Your task to perform on an android device: Is it going to rain this weekend? Image 0: 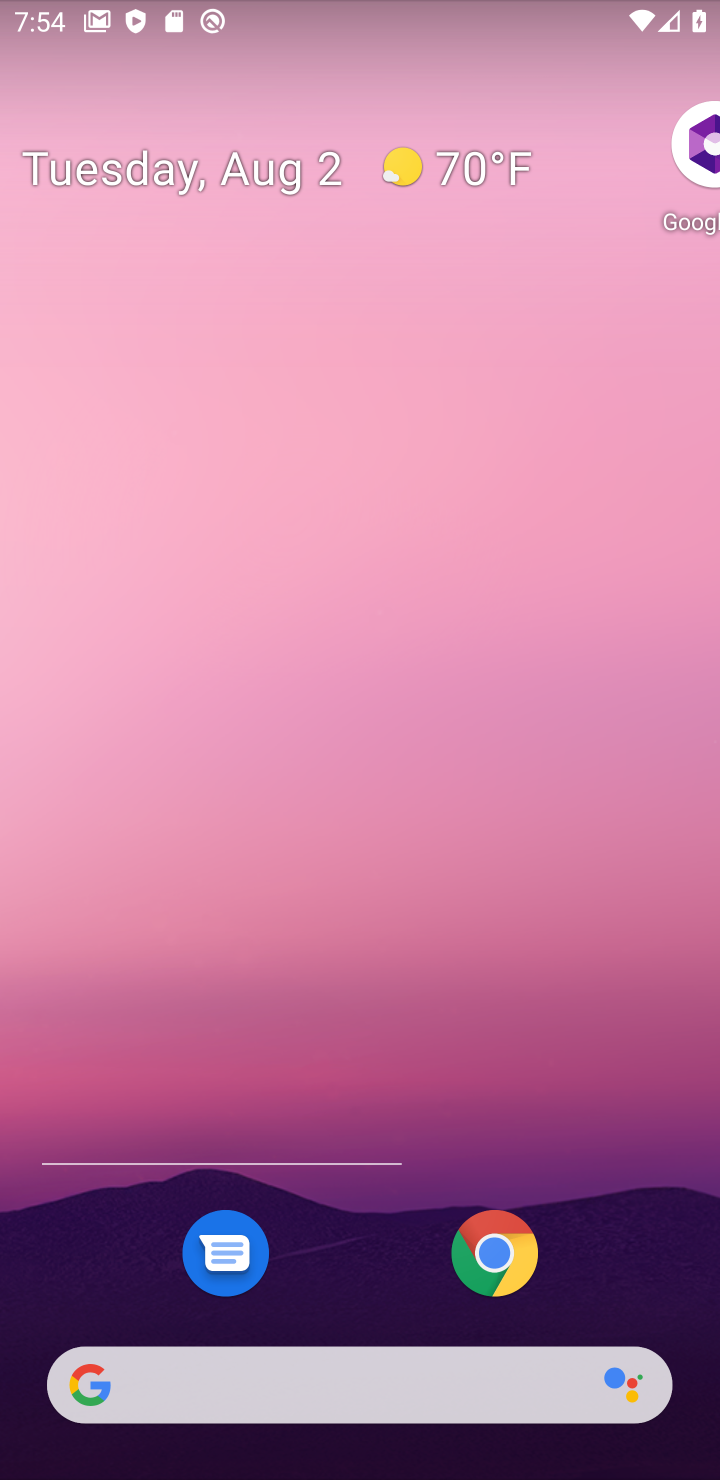
Step 0: press home button
Your task to perform on an android device: Is it going to rain this weekend? Image 1: 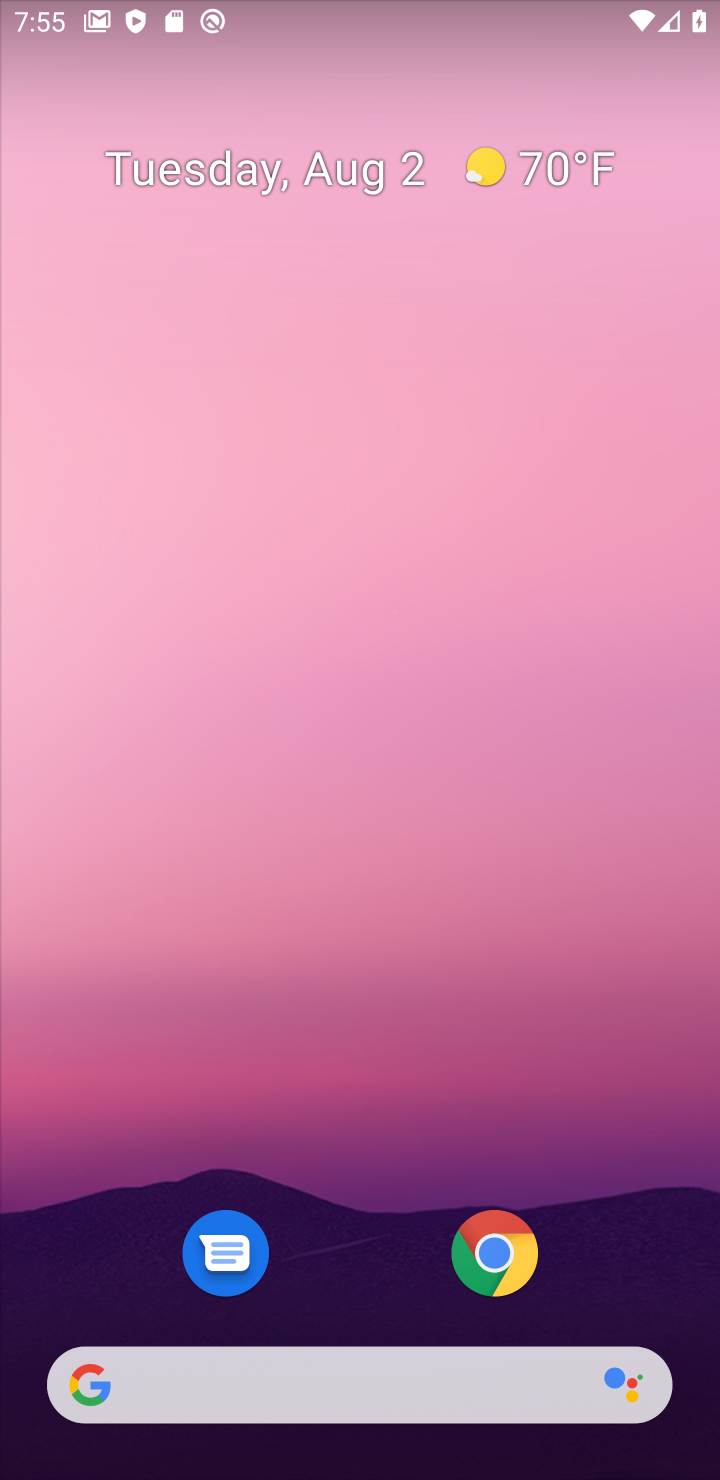
Step 1: click (325, 1375)
Your task to perform on an android device: Is it going to rain this weekend? Image 2: 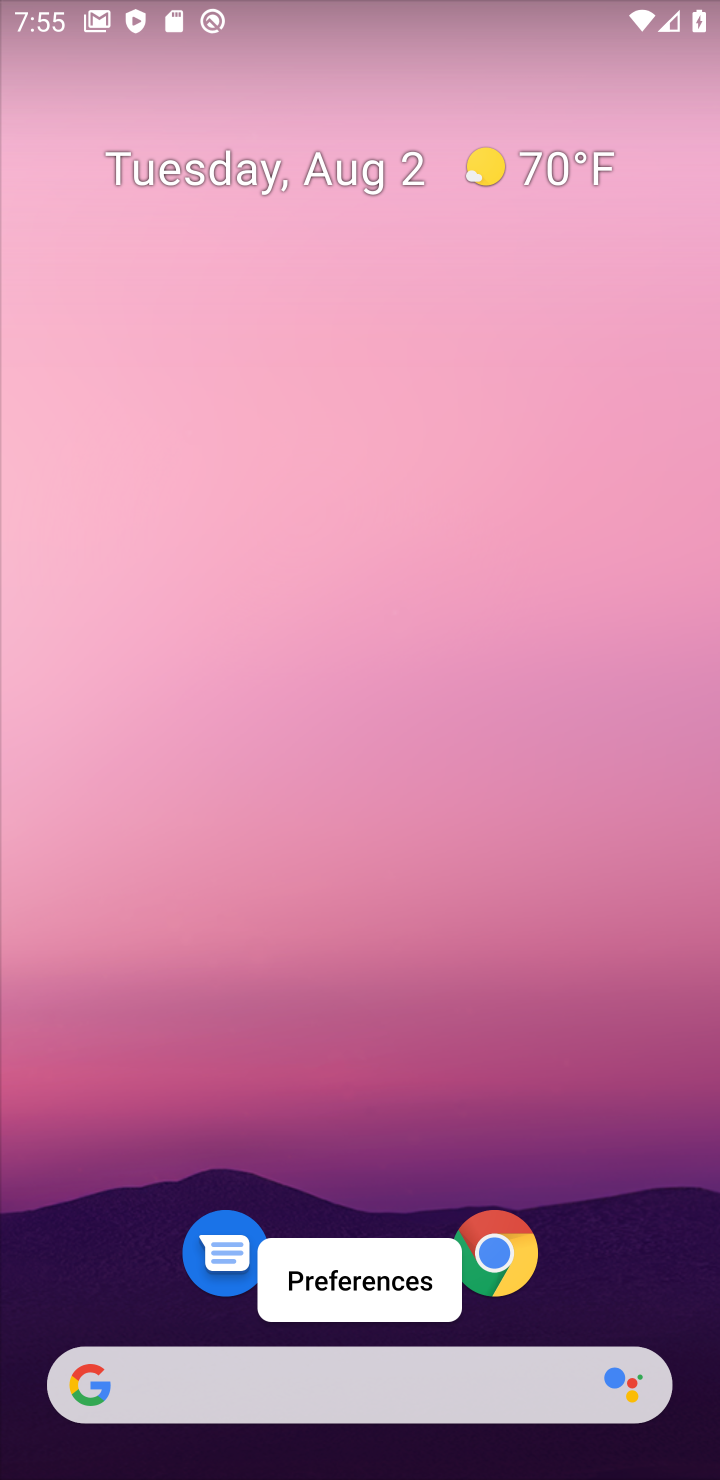
Step 2: click (278, 1377)
Your task to perform on an android device: Is it going to rain this weekend? Image 3: 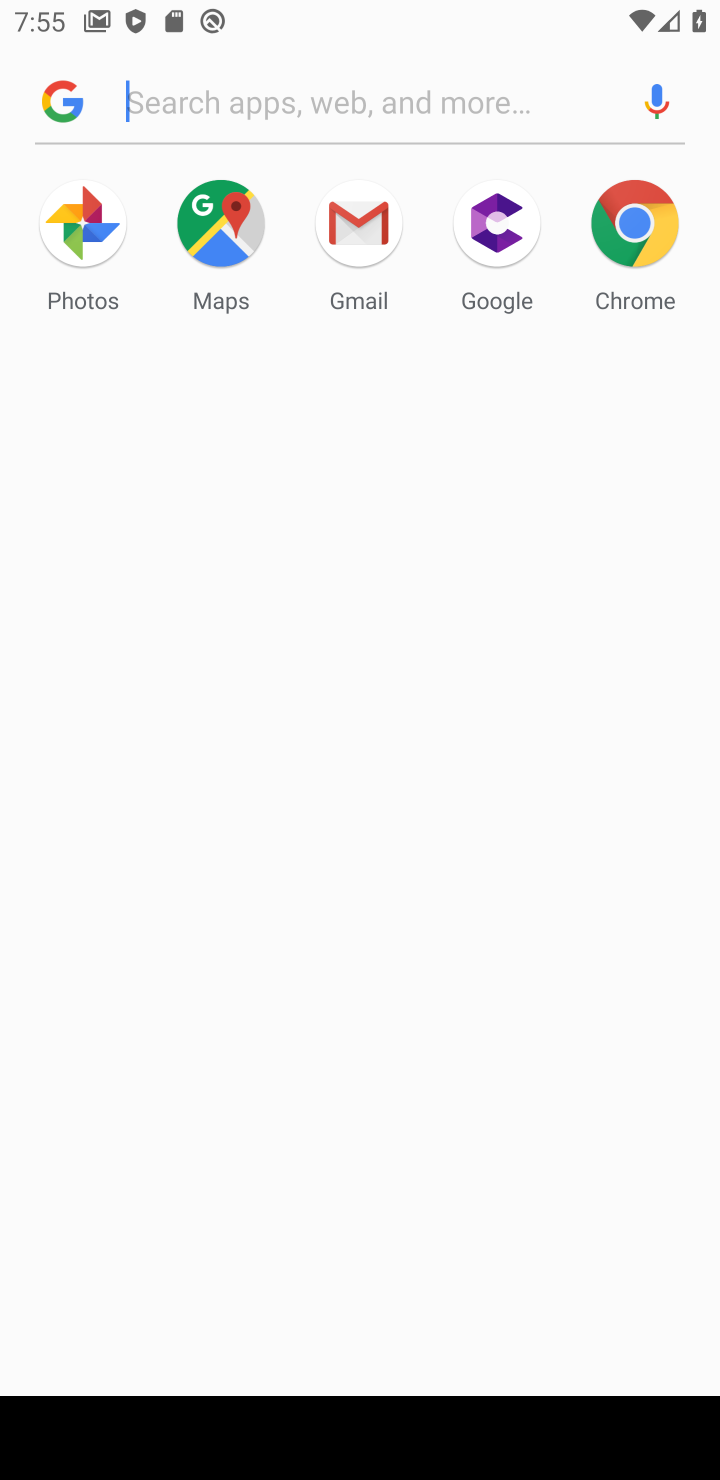
Step 3: type "Is it going to rain this weekend"
Your task to perform on an android device: Is it going to rain this weekend? Image 4: 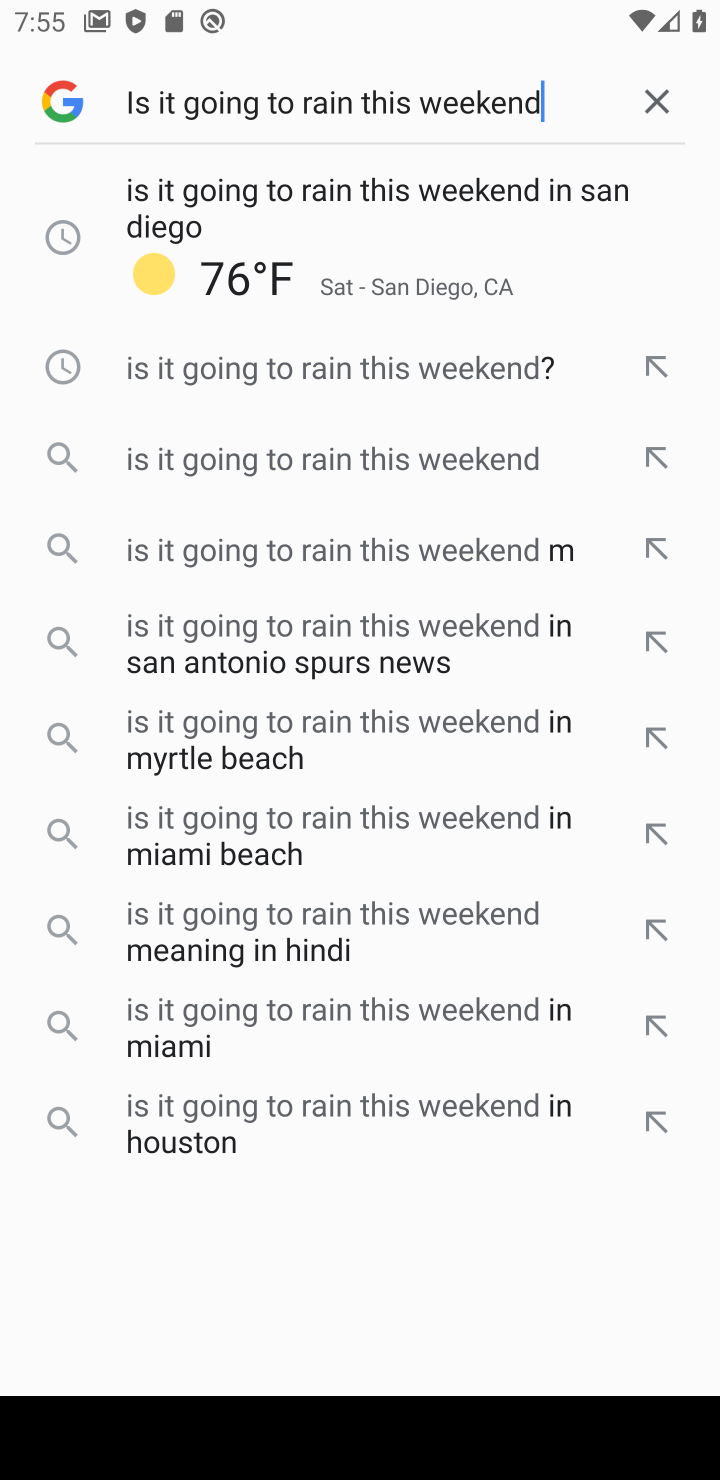
Step 4: click (318, 372)
Your task to perform on an android device: Is it going to rain this weekend? Image 5: 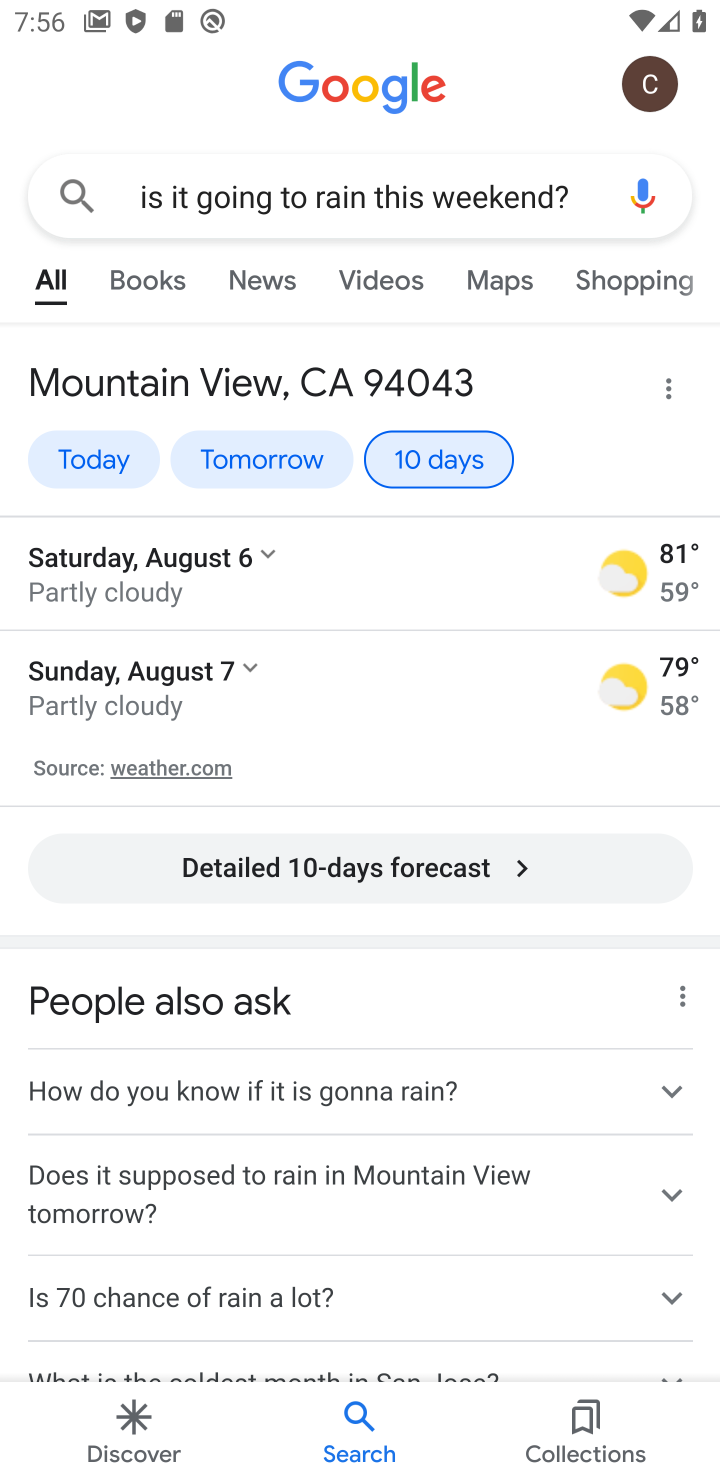
Step 5: task complete